Your task to perform on an android device: toggle priority inbox in the gmail app Image 0: 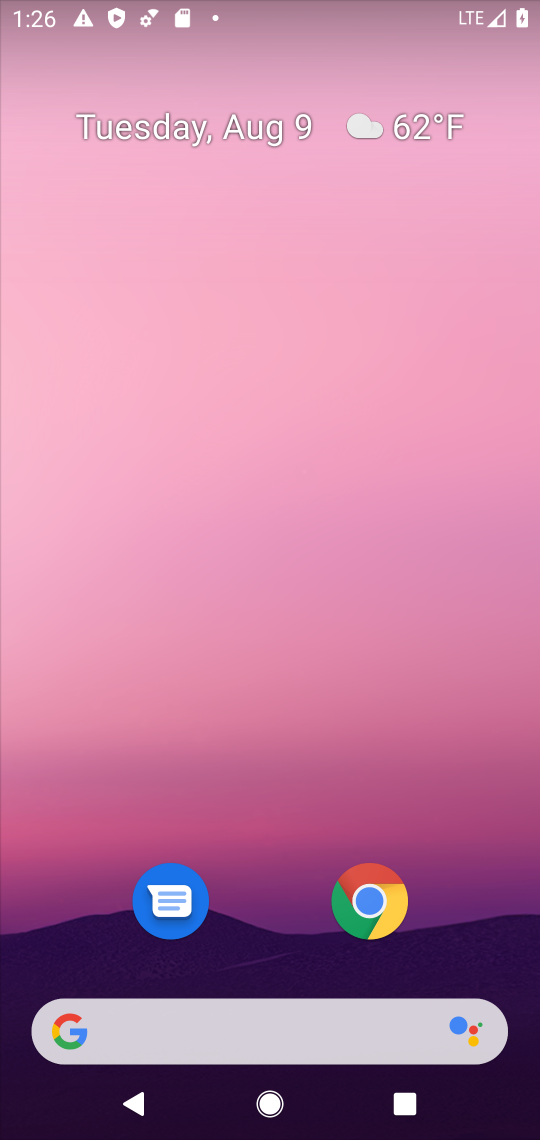
Step 0: drag from (523, 998) to (464, 181)
Your task to perform on an android device: toggle priority inbox in the gmail app Image 1: 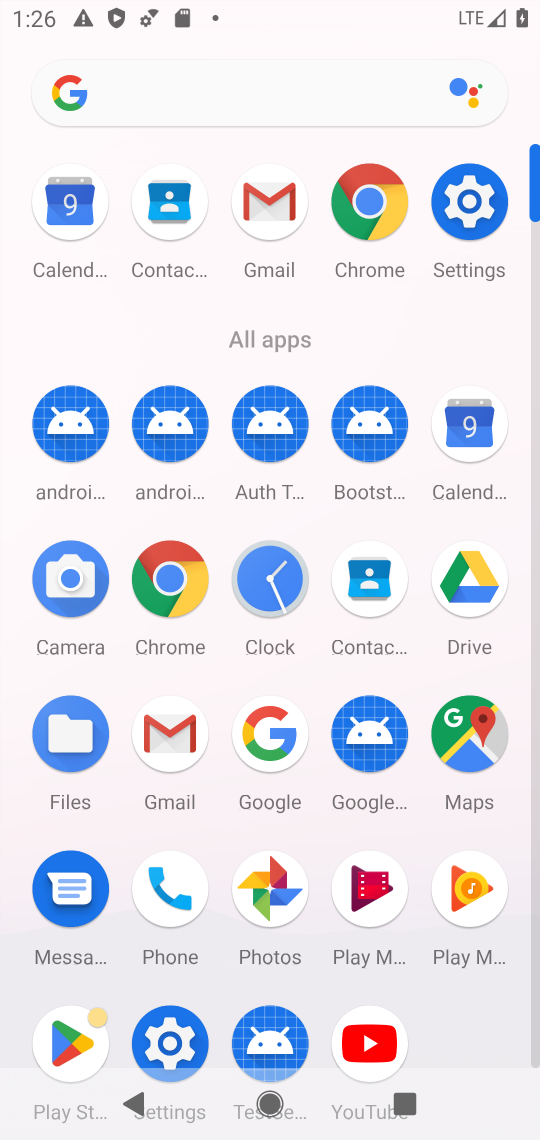
Step 1: click (169, 730)
Your task to perform on an android device: toggle priority inbox in the gmail app Image 2: 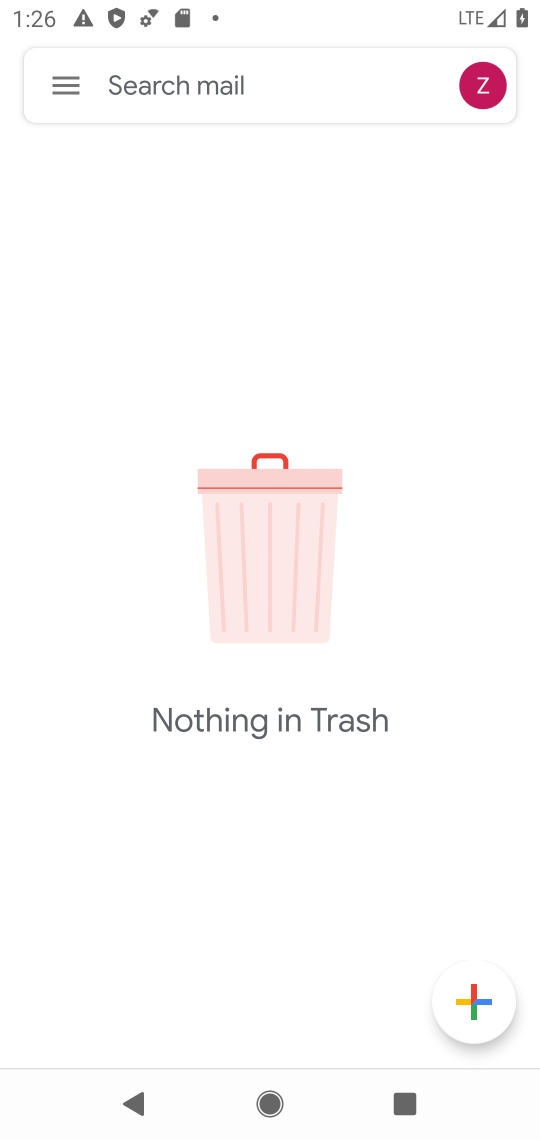
Step 2: click (60, 83)
Your task to perform on an android device: toggle priority inbox in the gmail app Image 3: 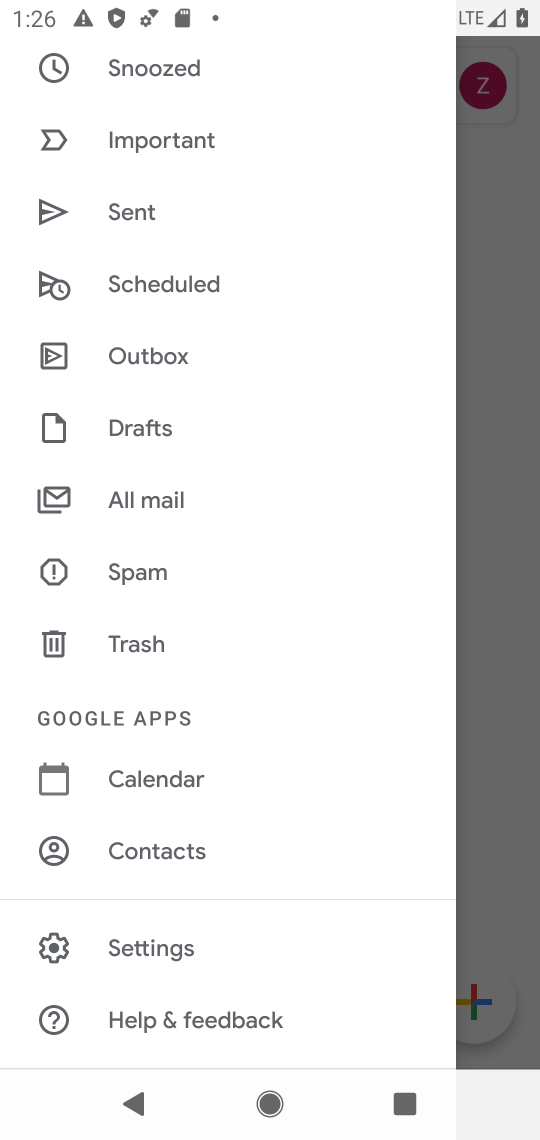
Step 3: click (156, 931)
Your task to perform on an android device: toggle priority inbox in the gmail app Image 4: 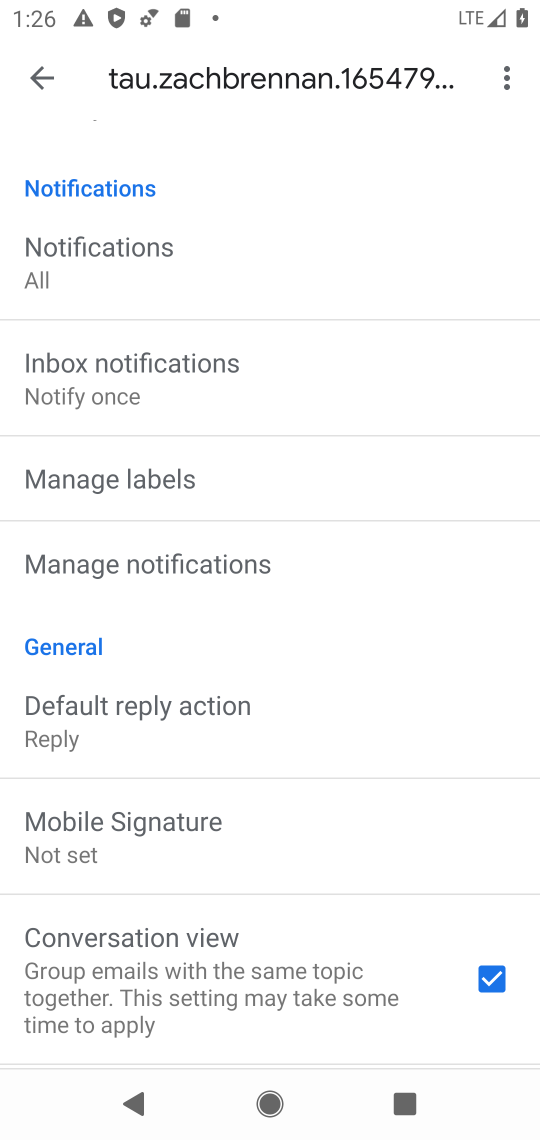
Step 4: drag from (321, 387) to (311, 828)
Your task to perform on an android device: toggle priority inbox in the gmail app Image 5: 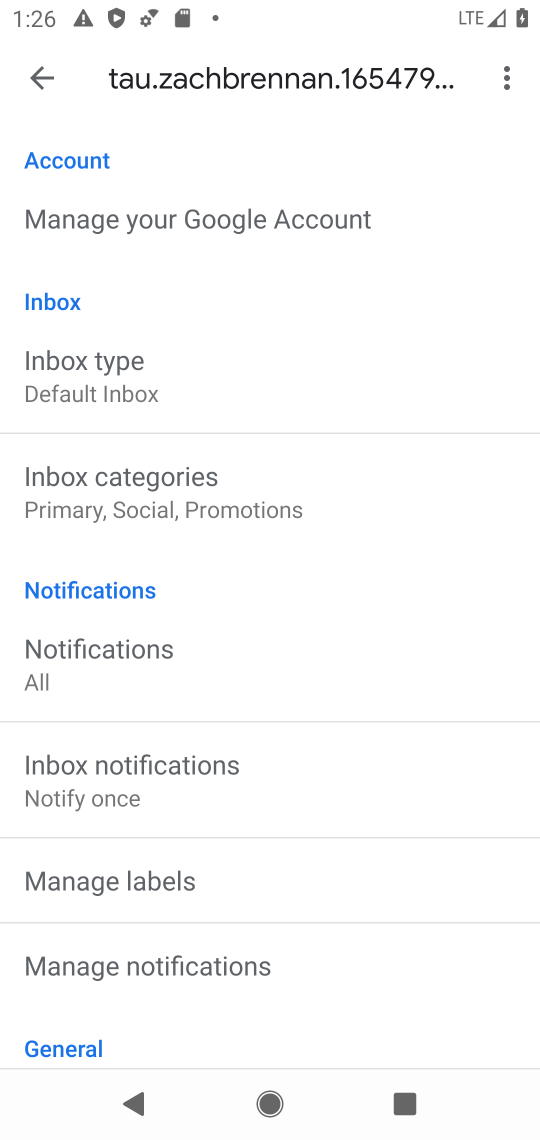
Step 5: click (92, 377)
Your task to perform on an android device: toggle priority inbox in the gmail app Image 6: 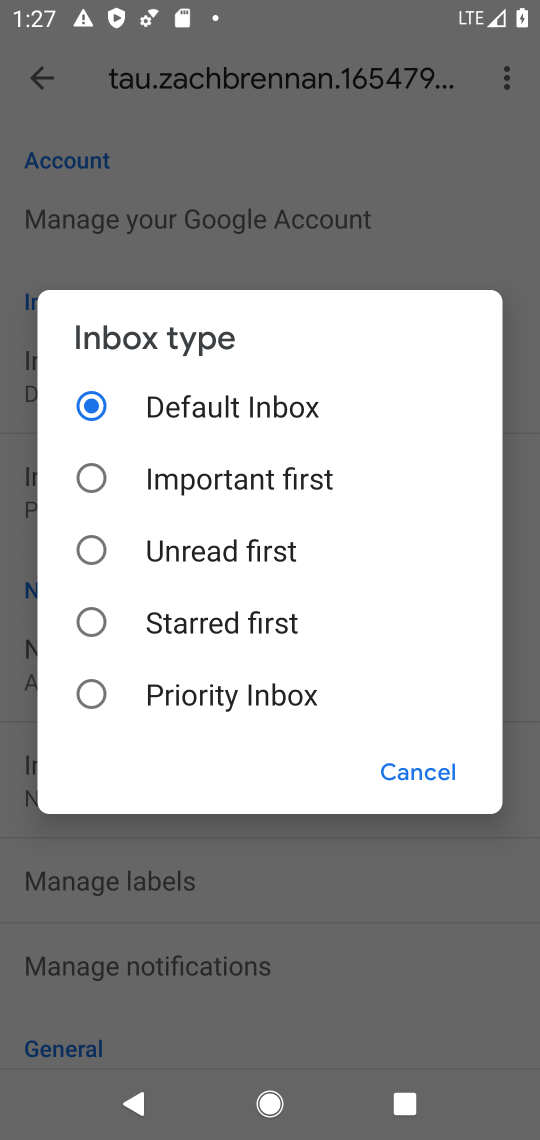
Step 6: click (102, 695)
Your task to perform on an android device: toggle priority inbox in the gmail app Image 7: 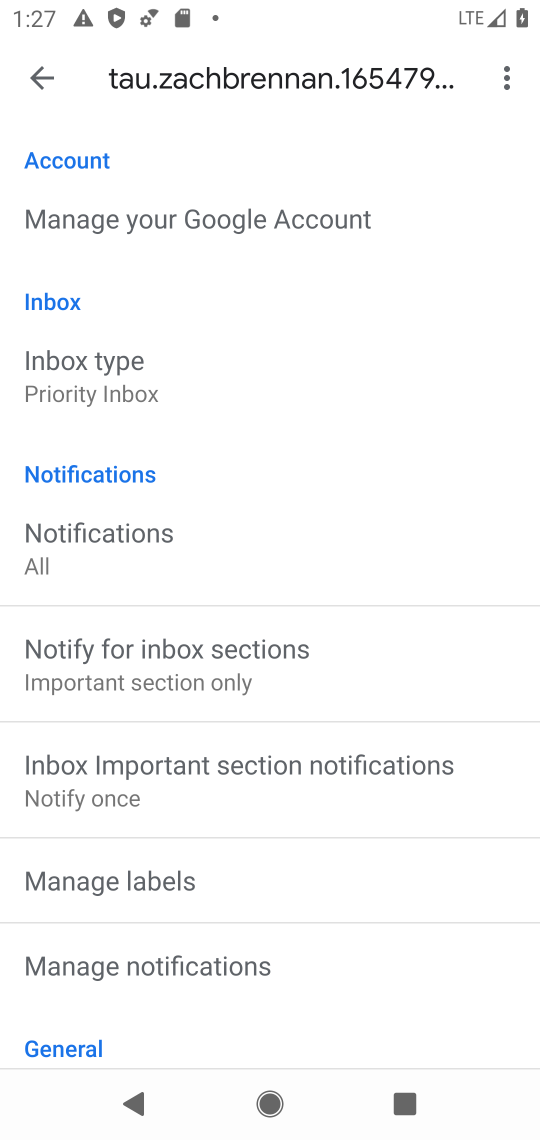
Step 7: task complete